Your task to perform on an android device: What's on my calendar today? Image 0: 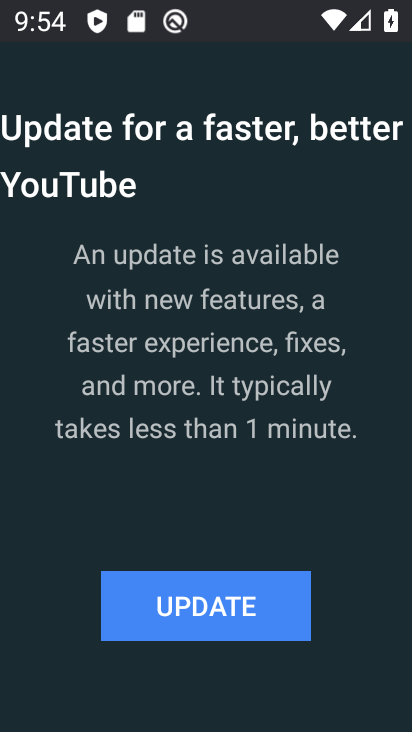
Step 0: press home button
Your task to perform on an android device: What's on my calendar today? Image 1: 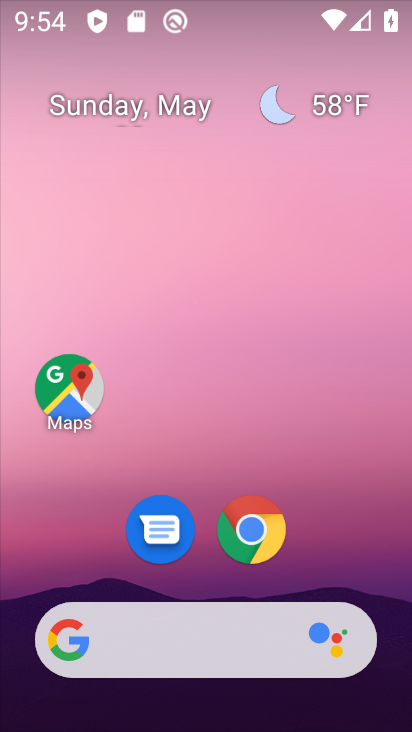
Step 1: drag from (182, 571) to (163, 7)
Your task to perform on an android device: What's on my calendar today? Image 2: 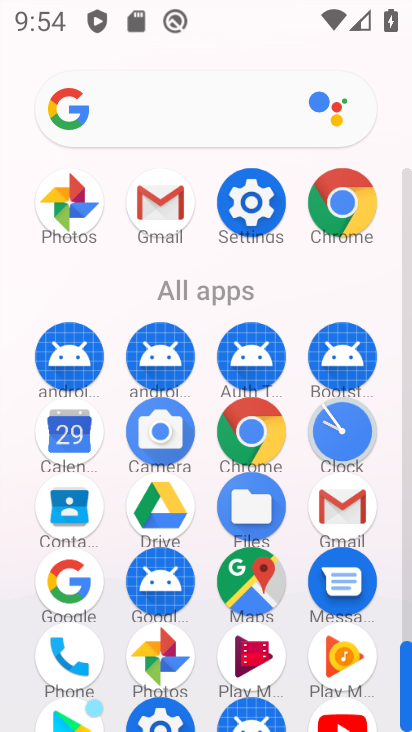
Step 2: click (53, 439)
Your task to perform on an android device: What's on my calendar today? Image 3: 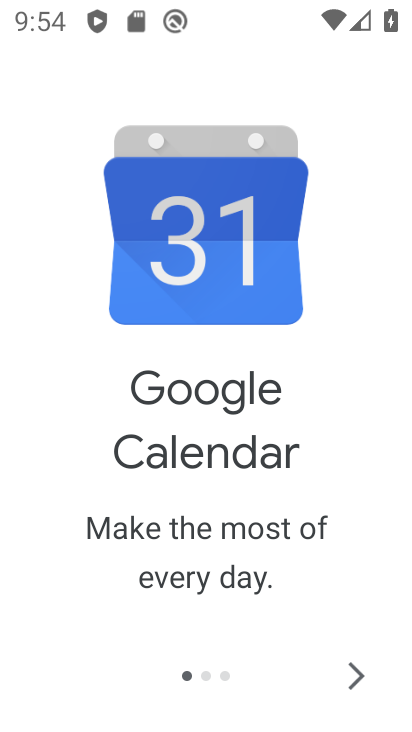
Step 3: click (356, 668)
Your task to perform on an android device: What's on my calendar today? Image 4: 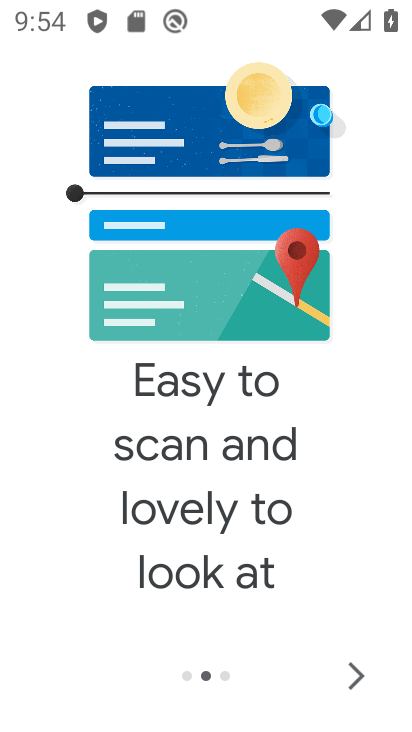
Step 4: click (355, 669)
Your task to perform on an android device: What's on my calendar today? Image 5: 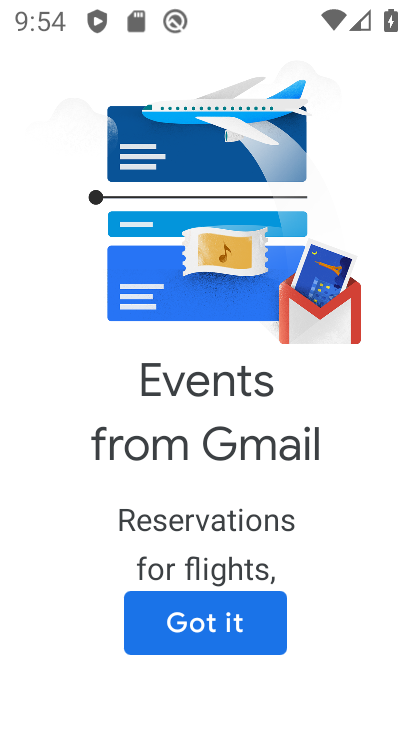
Step 5: click (225, 625)
Your task to perform on an android device: What's on my calendar today? Image 6: 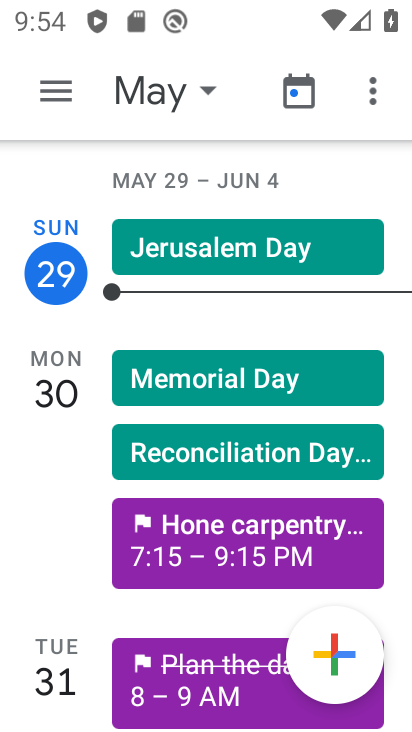
Step 6: click (51, 78)
Your task to perform on an android device: What's on my calendar today? Image 7: 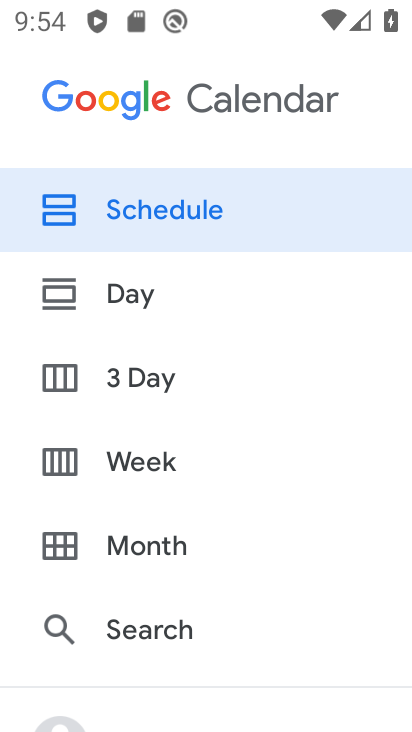
Step 7: click (118, 312)
Your task to perform on an android device: What's on my calendar today? Image 8: 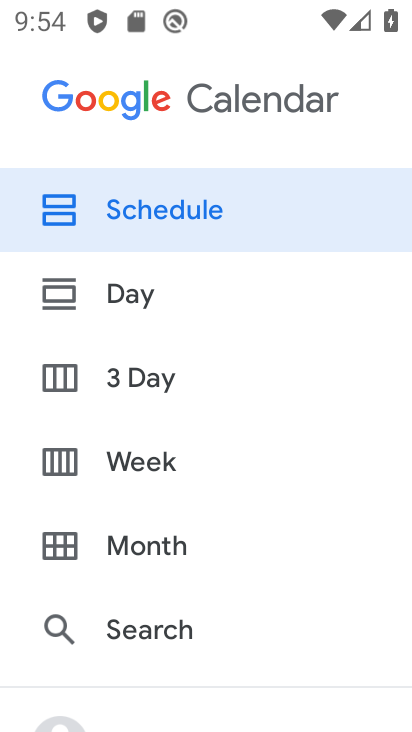
Step 8: click (131, 321)
Your task to perform on an android device: What's on my calendar today? Image 9: 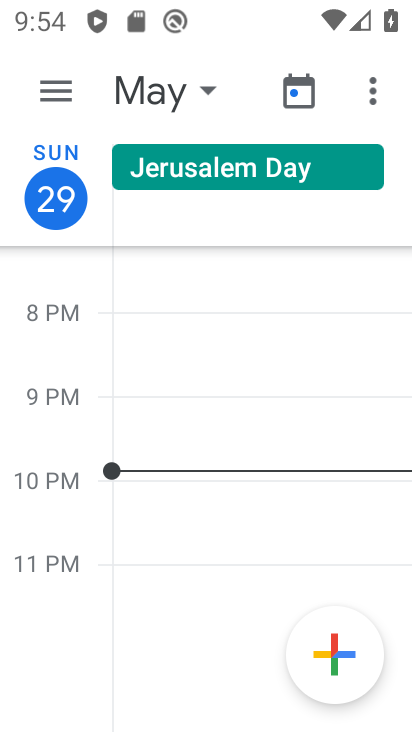
Step 9: click (215, 372)
Your task to perform on an android device: What's on my calendar today? Image 10: 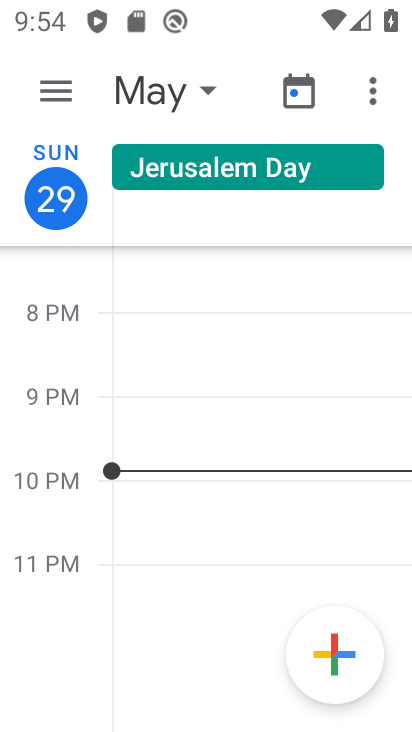
Step 10: task complete